Your task to perform on an android device: turn off improve location accuracy Image 0: 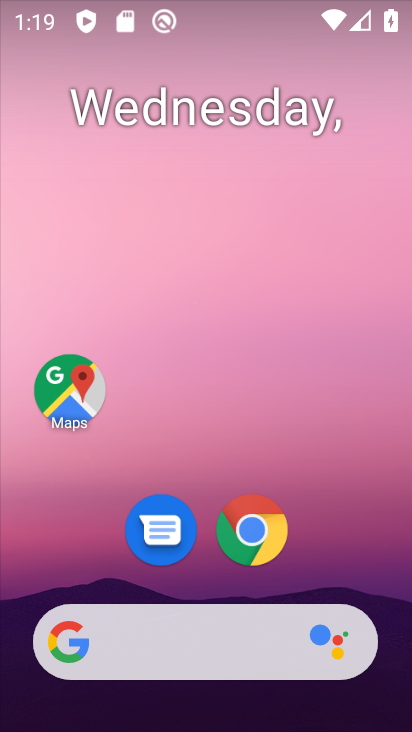
Step 0: drag from (217, 615) to (305, 181)
Your task to perform on an android device: turn off improve location accuracy Image 1: 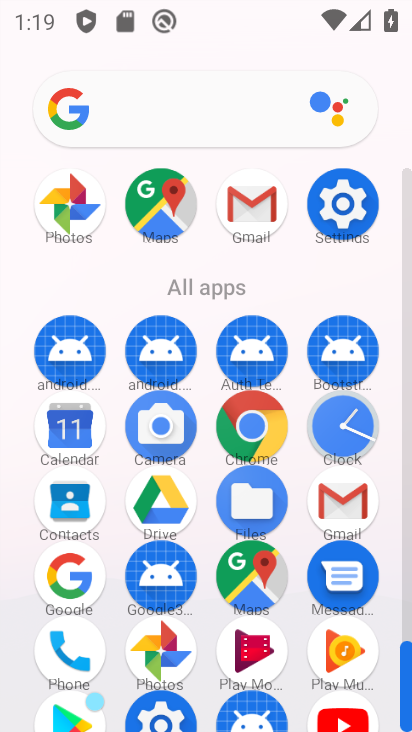
Step 1: click (321, 209)
Your task to perform on an android device: turn off improve location accuracy Image 2: 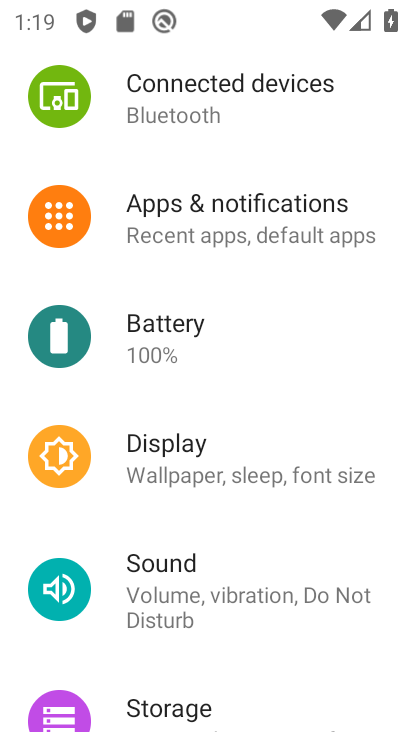
Step 2: drag from (191, 620) to (262, 187)
Your task to perform on an android device: turn off improve location accuracy Image 3: 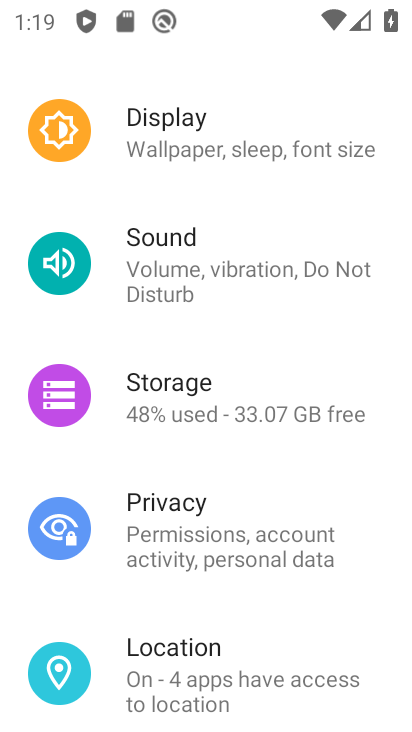
Step 3: click (192, 675)
Your task to perform on an android device: turn off improve location accuracy Image 4: 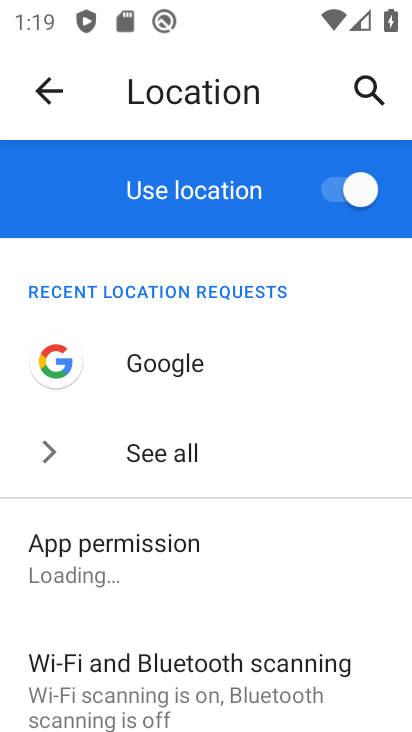
Step 4: drag from (212, 643) to (268, 355)
Your task to perform on an android device: turn off improve location accuracy Image 5: 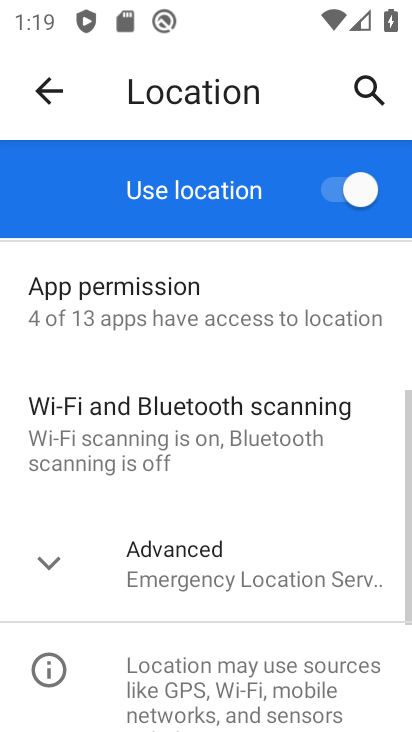
Step 5: click (235, 584)
Your task to perform on an android device: turn off improve location accuracy Image 6: 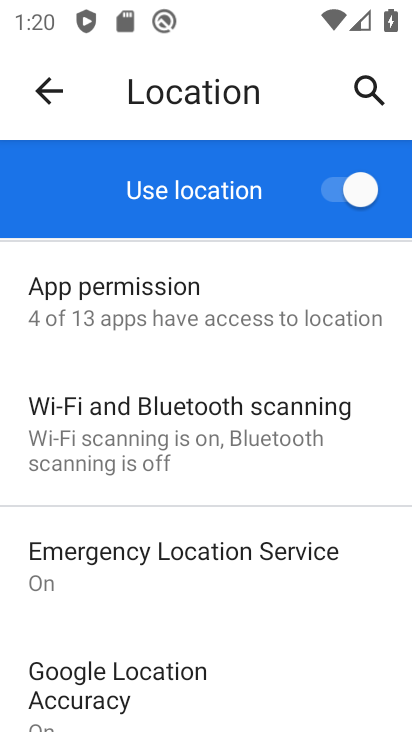
Step 6: drag from (181, 649) to (265, 346)
Your task to perform on an android device: turn off improve location accuracy Image 7: 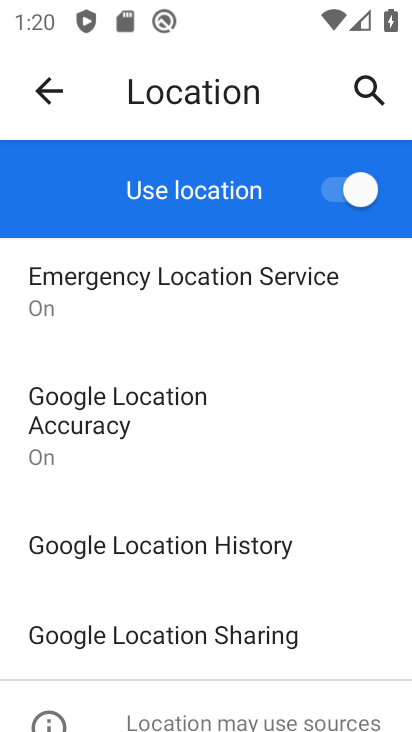
Step 7: click (185, 426)
Your task to perform on an android device: turn off improve location accuracy Image 8: 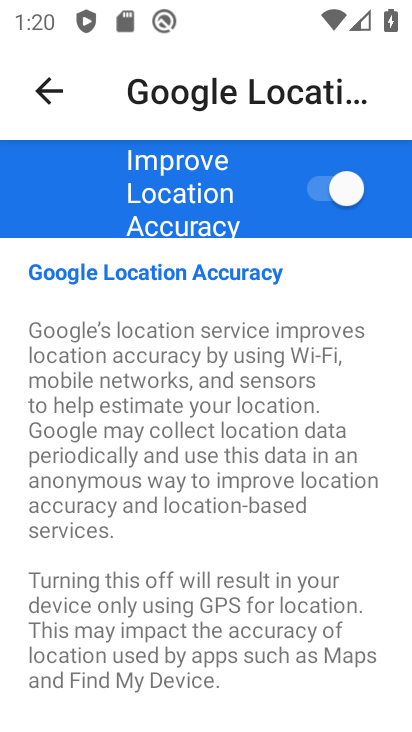
Step 8: click (301, 193)
Your task to perform on an android device: turn off improve location accuracy Image 9: 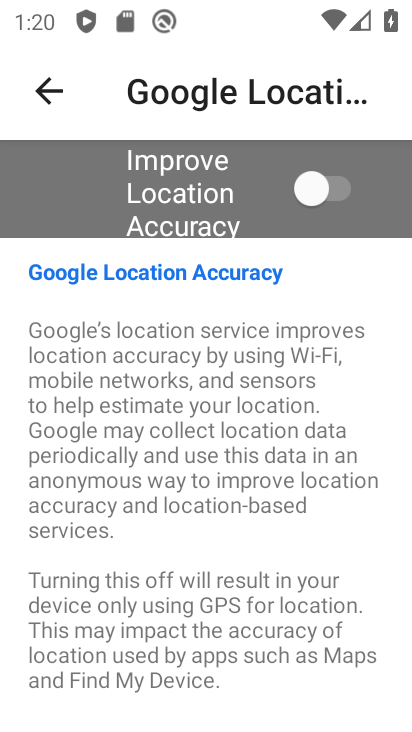
Step 9: task complete